Your task to perform on an android device: toggle wifi Image 0: 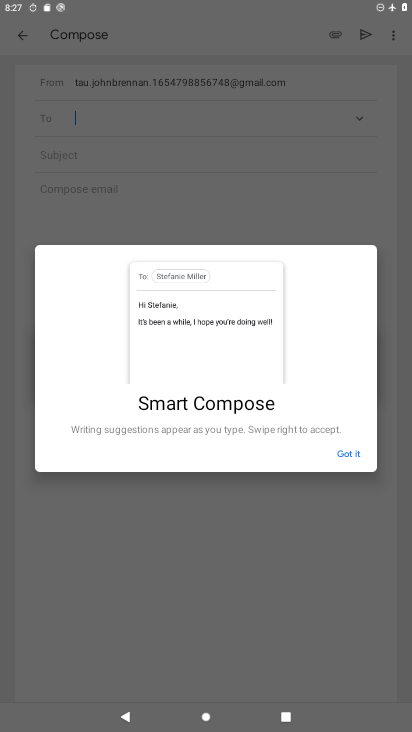
Step 0: press home button
Your task to perform on an android device: toggle wifi Image 1: 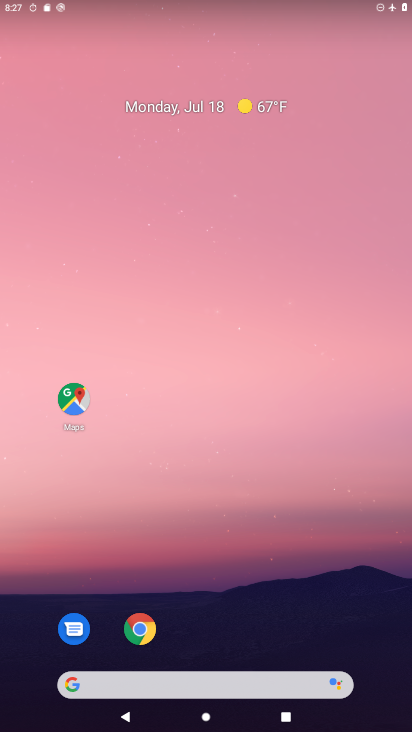
Step 1: drag from (210, 642) to (153, 195)
Your task to perform on an android device: toggle wifi Image 2: 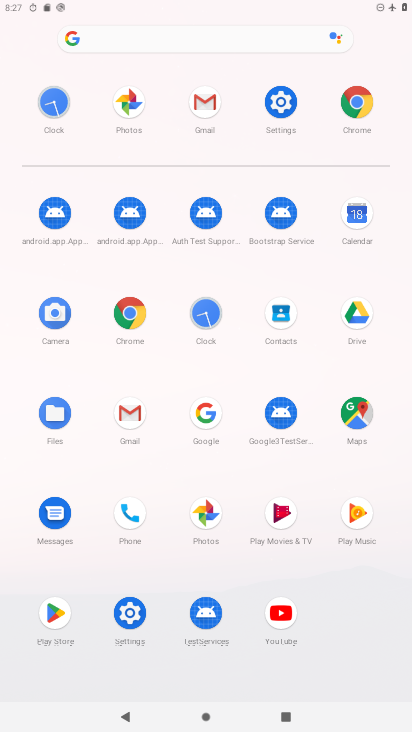
Step 2: click (277, 109)
Your task to perform on an android device: toggle wifi Image 3: 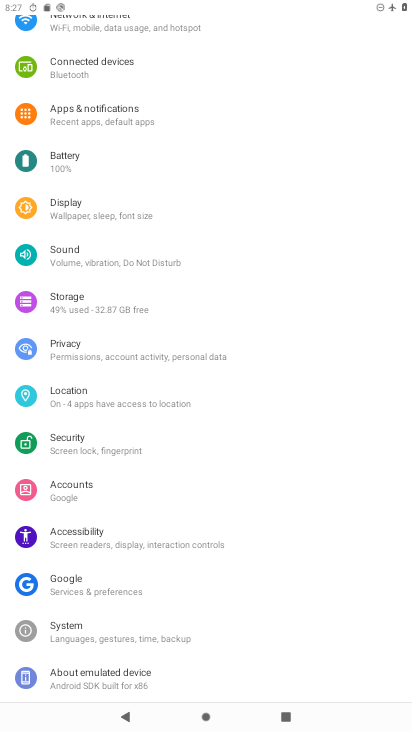
Step 3: drag from (80, 121) to (85, 504)
Your task to perform on an android device: toggle wifi Image 4: 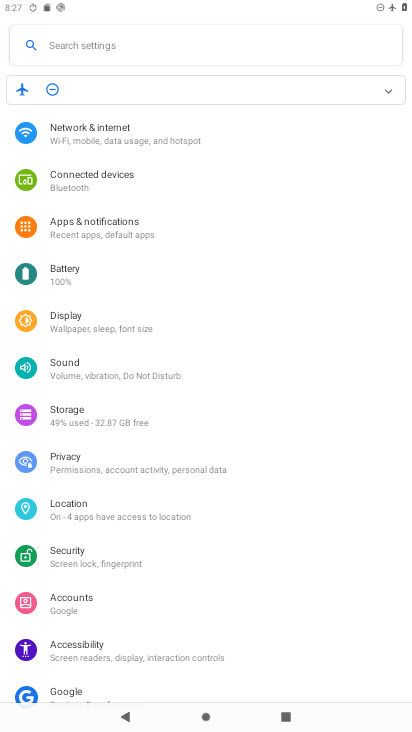
Step 4: click (161, 132)
Your task to perform on an android device: toggle wifi Image 5: 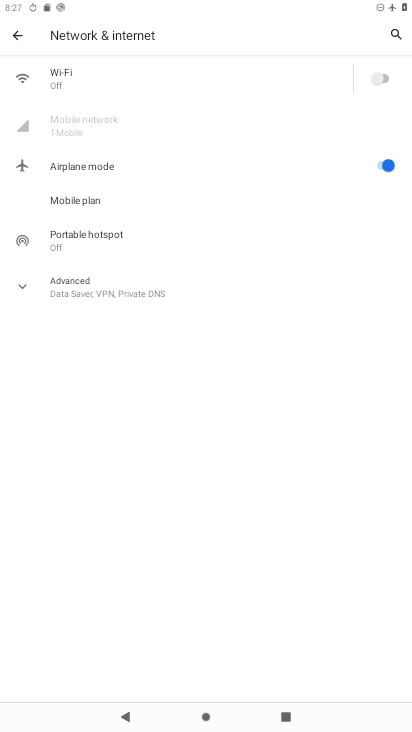
Step 5: click (378, 75)
Your task to perform on an android device: toggle wifi Image 6: 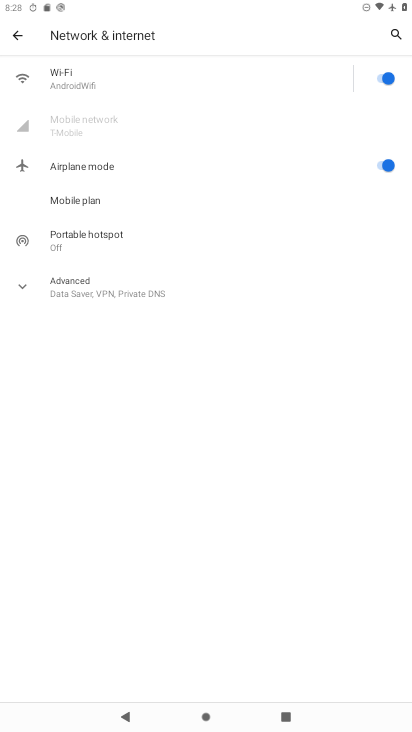
Step 6: task complete